Your task to perform on an android device: Go to eBay Image 0: 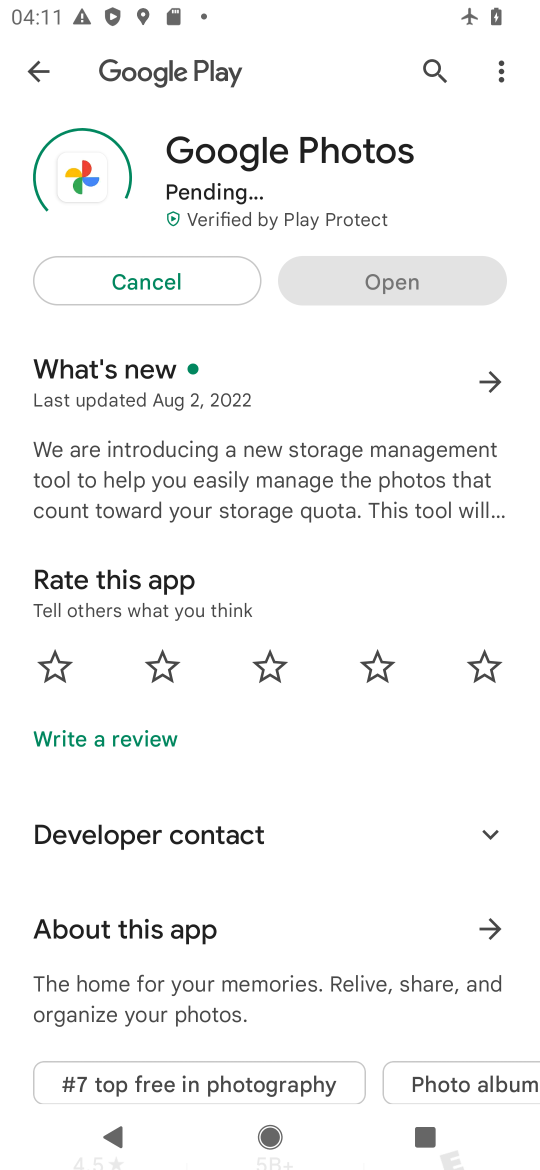
Step 0: press home button
Your task to perform on an android device: Go to eBay Image 1: 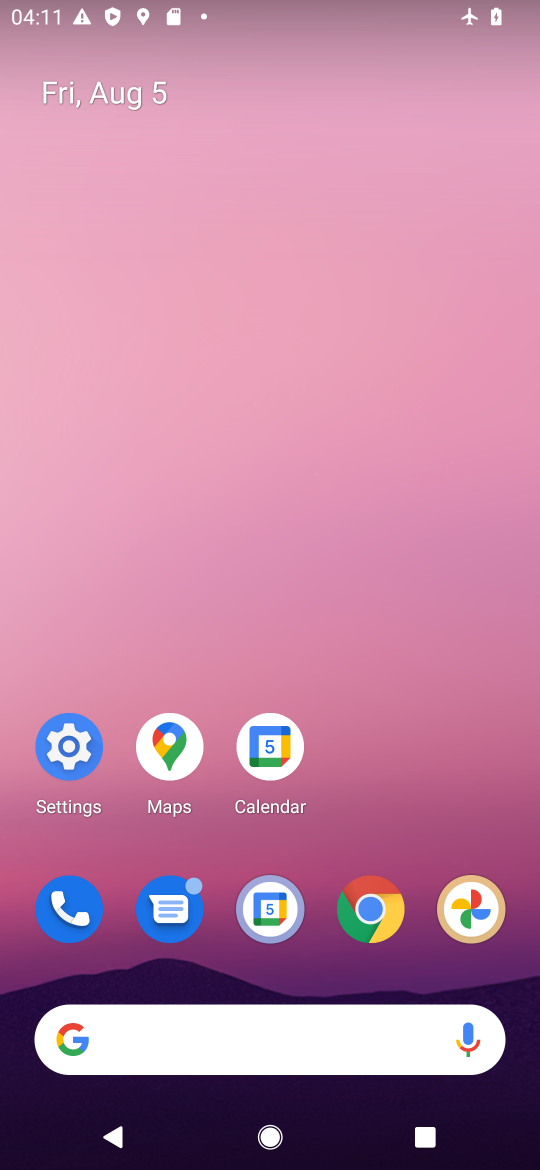
Step 1: click (378, 907)
Your task to perform on an android device: Go to eBay Image 2: 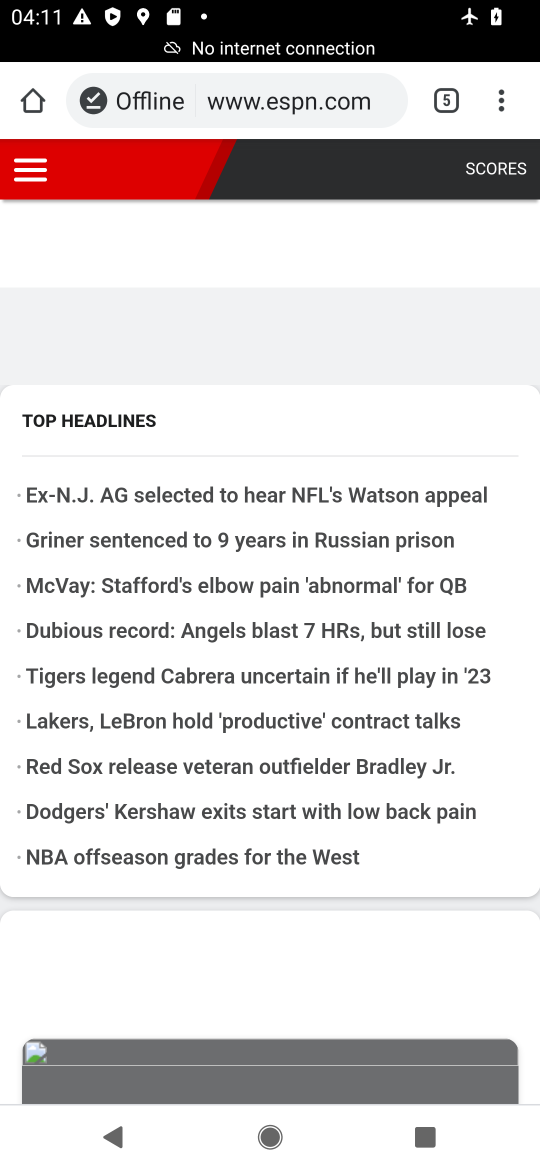
Step 2: click (496, 100)
Your task to perform on an android device: Go to eBay Image 3: 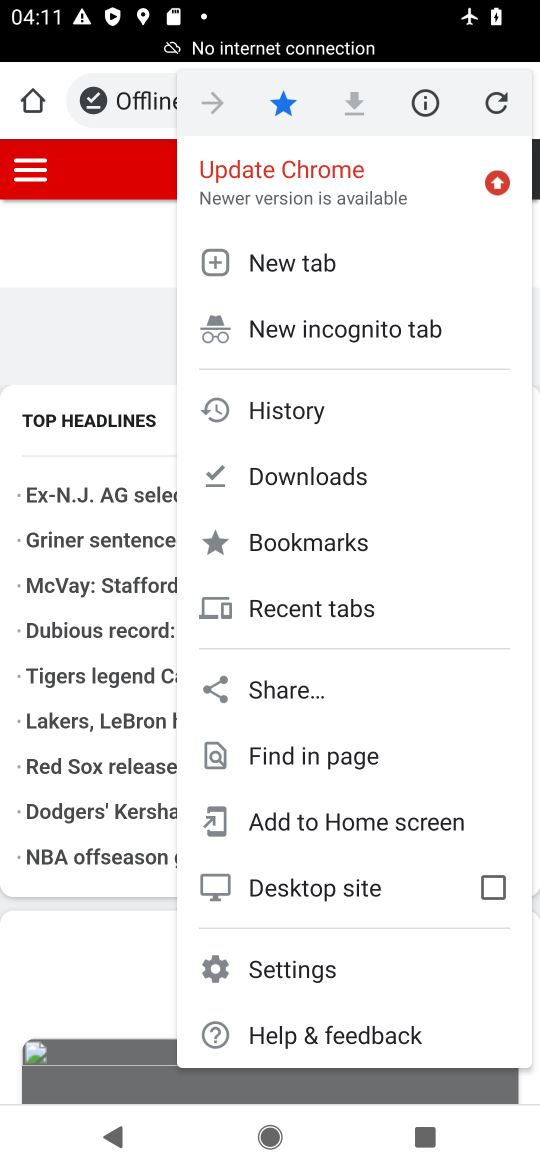
Step 3: click (308, 267)
Your task to perform on an android device: Go to eBay Image 4: 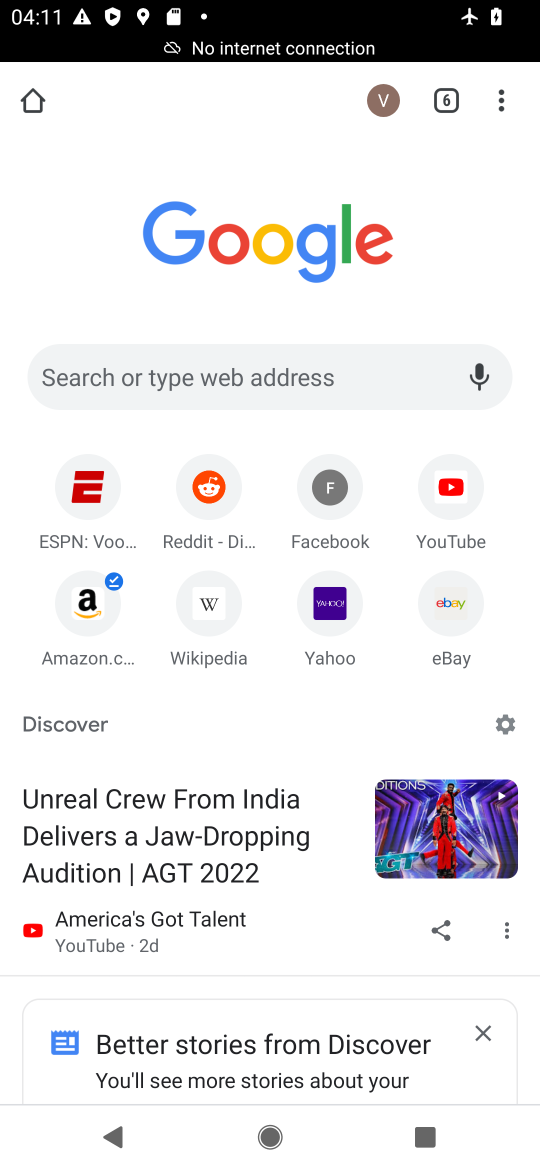
Step 4: click (459, 623)
Your task to perform on an android device: Go to eBay Image 5: 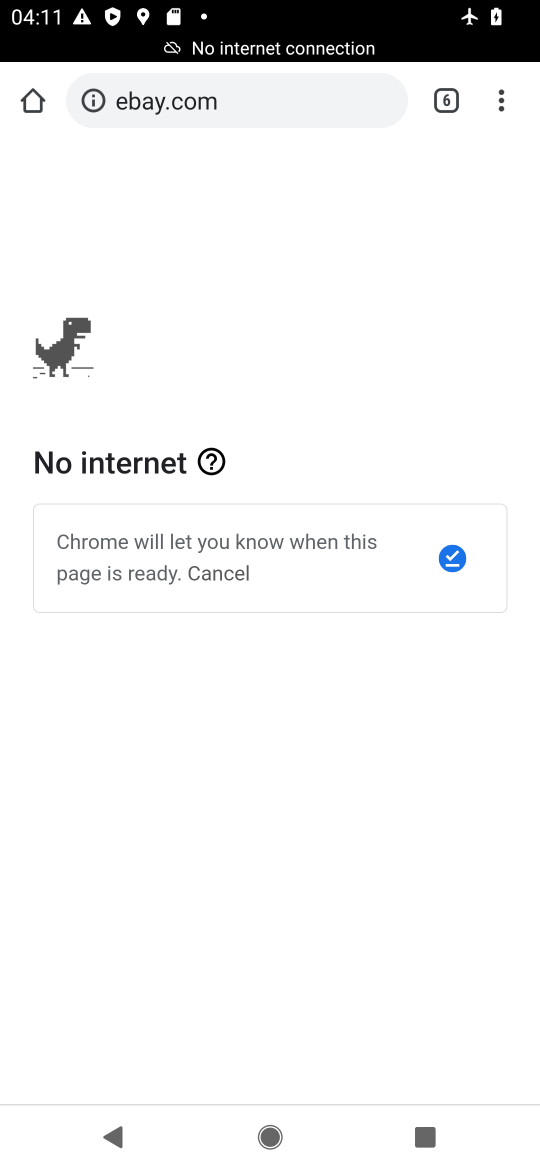
Step 5: task complete